Your task to perform on an android device: open a bookmark in the chrome app Image 0: 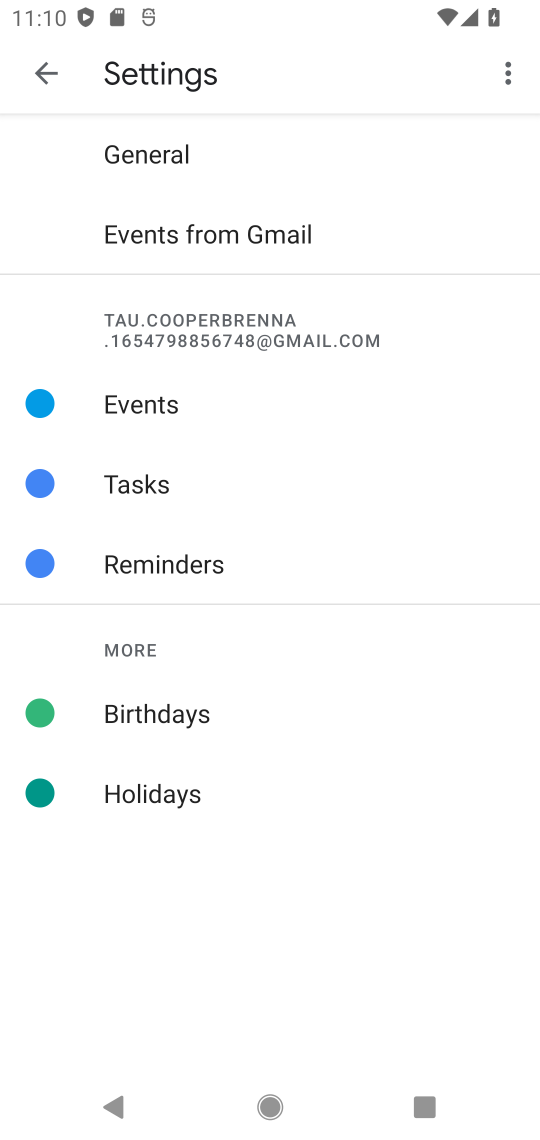
Step 0: press home button
Your task to perform on an android device: open a bookmark in the chrome app Image 1: 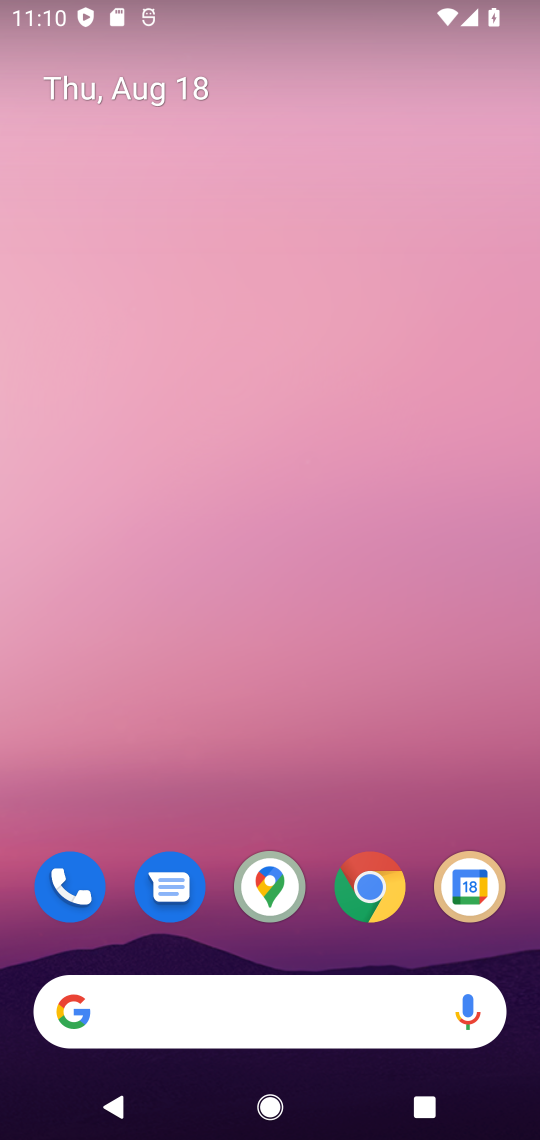
Step 1: click (363, 917)
Your task to perform on an android device: open a bookmark in the chrome app Image 2: 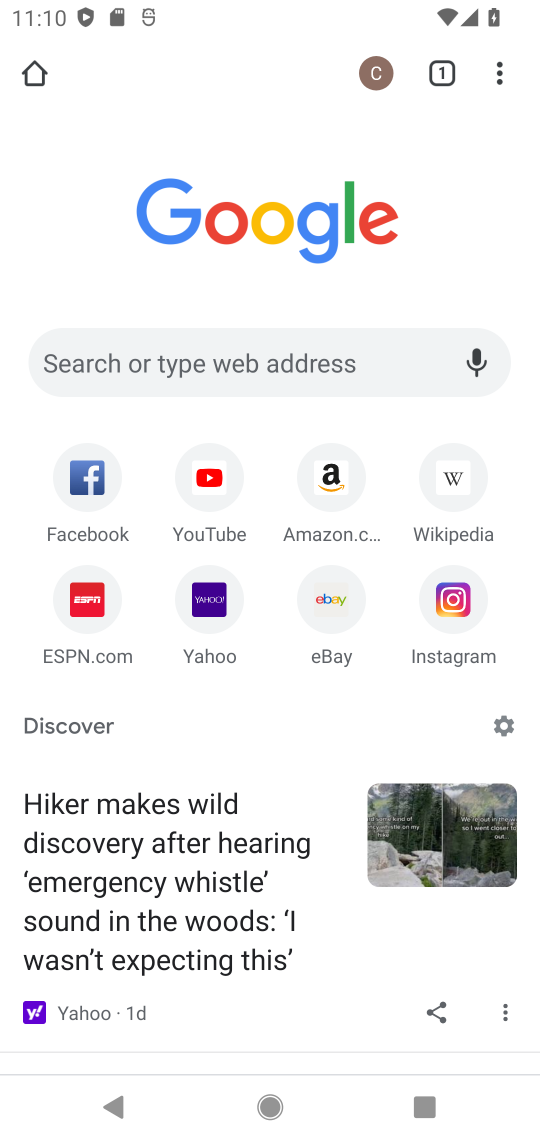
Step 2: click (508, 83)
Your task to perform on an android device: open a bookmark in the chrome app Image 3: 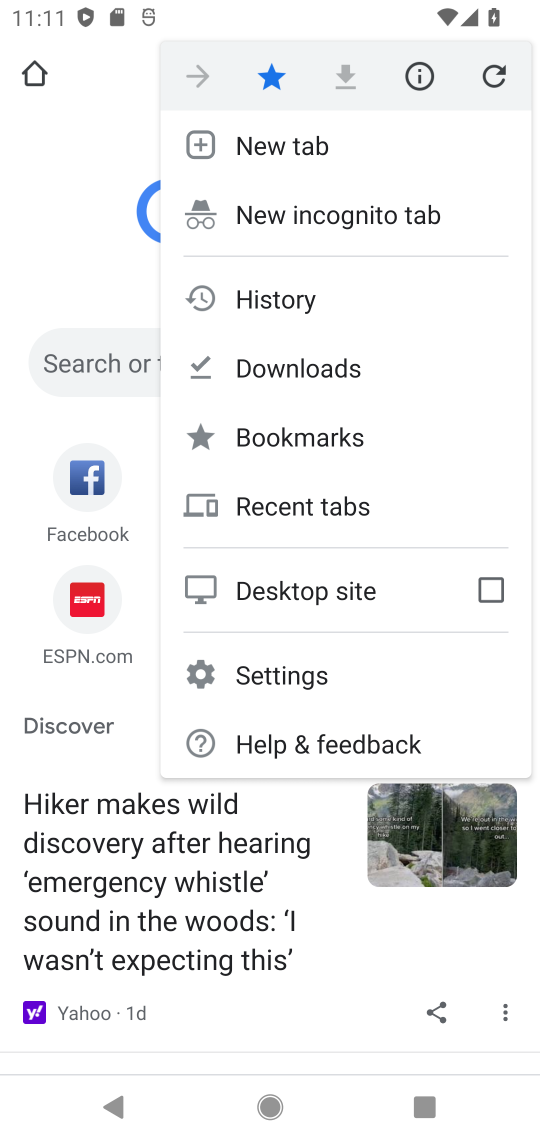
Step 3: click (293, 443)
Your task to perform on an android device: open a bookmark in the chrome app Image 4: 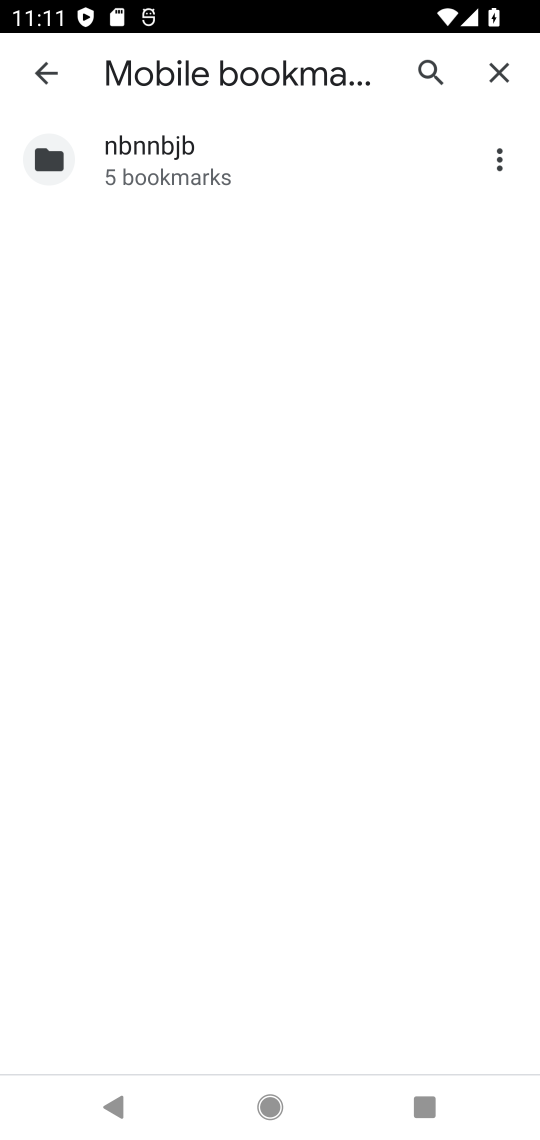
Step 4: task complete